Your task to perform on an android device: open app "Pandora - Music & Podcasts" Image 0: 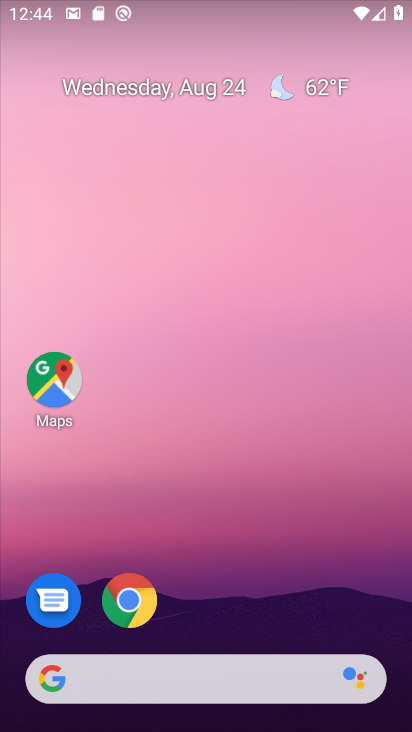
Step 0: drag from (232, 383) to (243, 93)
Your task to perform on an android device: open app "Pandora - Music & Podcasts" Image 1: 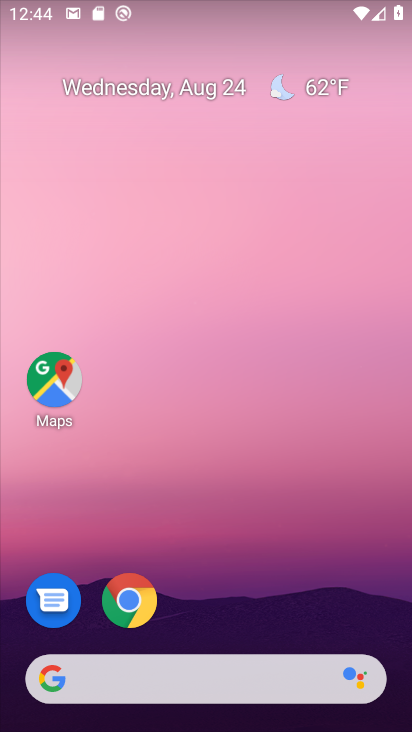
Step 1: drag from (247, 641) to (243, 38)
Your task to perform on an android device: open app "Pandora - Music & Podcasts" Image 2: 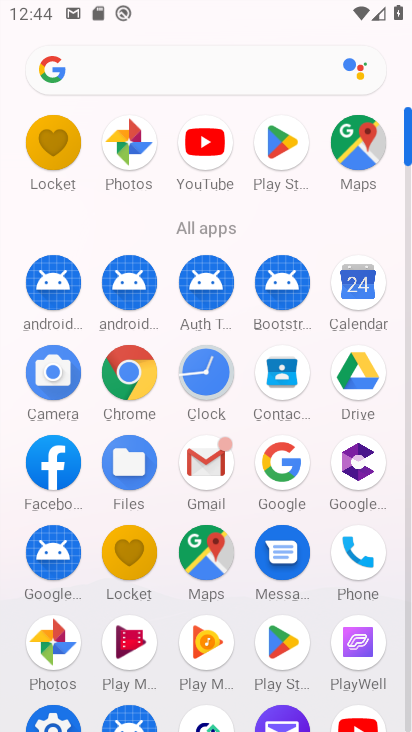
Step 2: click (274, 147)
Your task to perform on an android device: open app "Pandora - Music & Podcasts" Image 3: 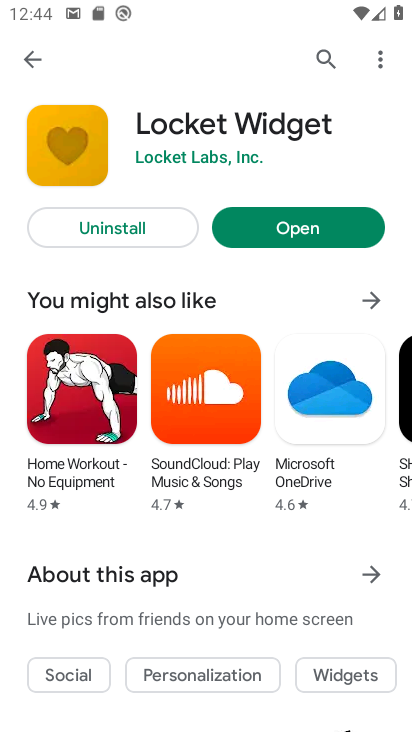
Step 3: click (318, 73)
Your task to perform on an android device: open app "Pandora - Music & Podcasts" Image 4: 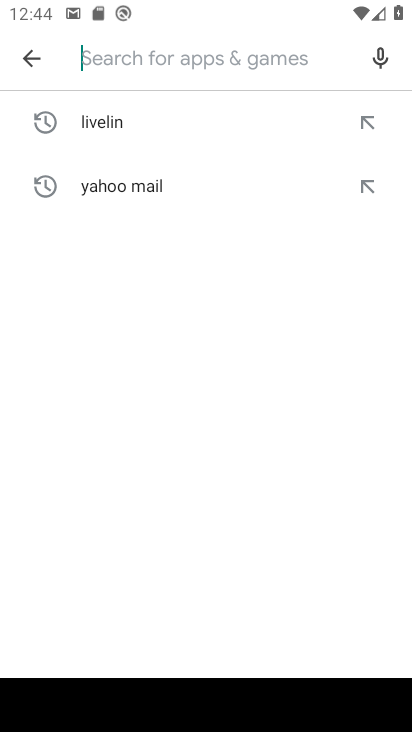
Step 4: type "pandora"
Your task to perform on an android device: open app "Pandora - Music & Podcasts" Image 5: 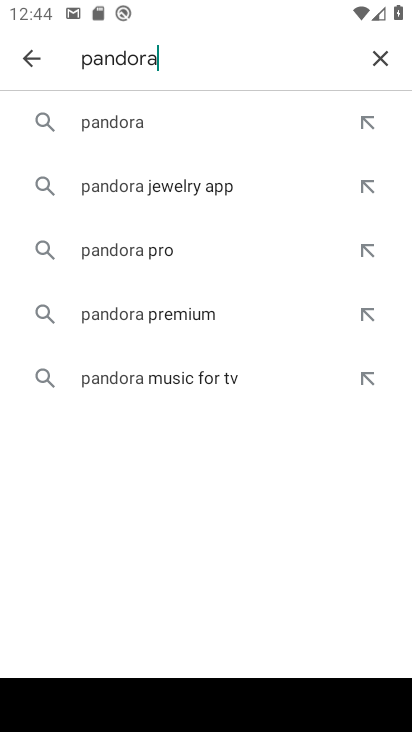
Step 5: click (166, 121)
Your task to perform on an android device: open app "Pandora - Music & Podcasts" Image 6: 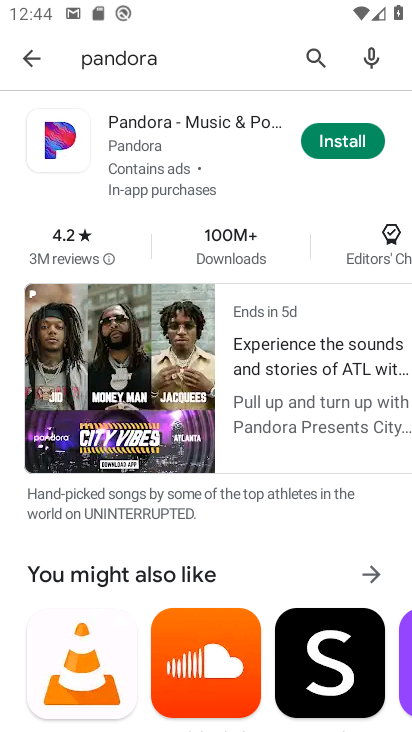
Step 6: click (329, 147)
Your task to perform on an android device: open app "Pandora - Music & Podcasts" Image 7: 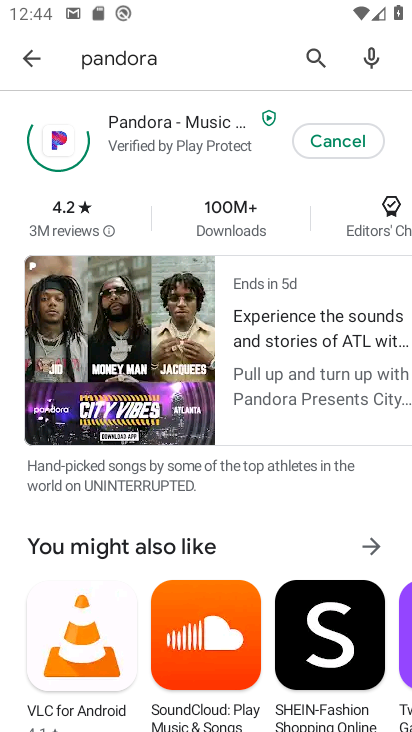
Step 7: task complete